Your task to perform on an android device: allow cookies in the chrome app Image 0: 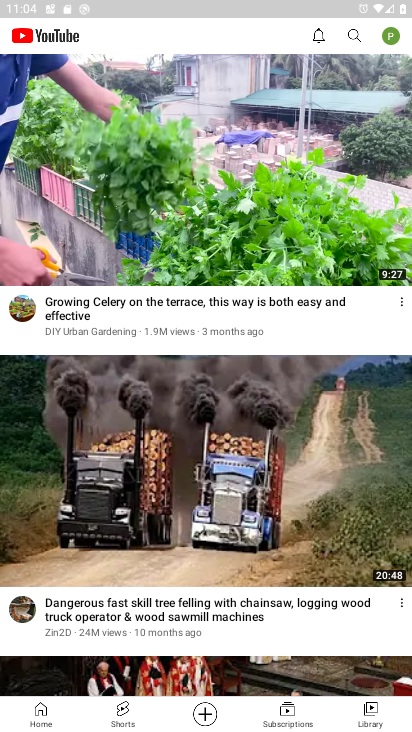
Step 0: task complete